Your task to perform on an android device: check data usage Image 0: 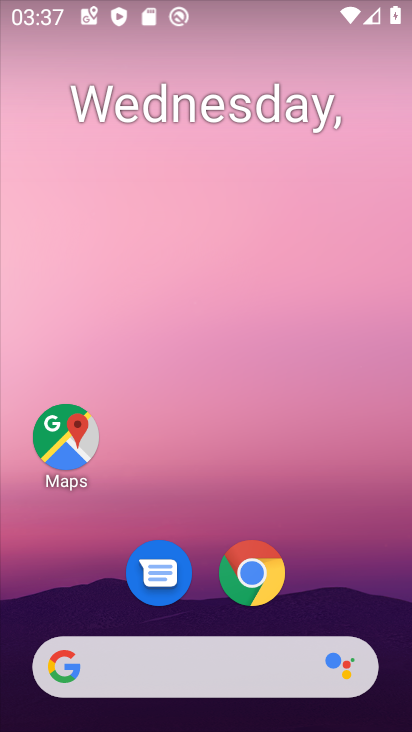
Step 0: drag from (341, 583) to (234, 141)
Your task to perform on an android device: check data usage Image 1: 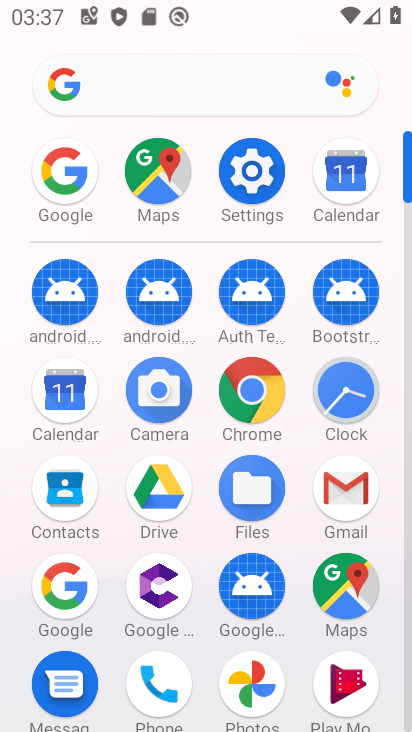
Step 1: click (250, 171)
Your task to perform on an android device: check data usage Image 2: 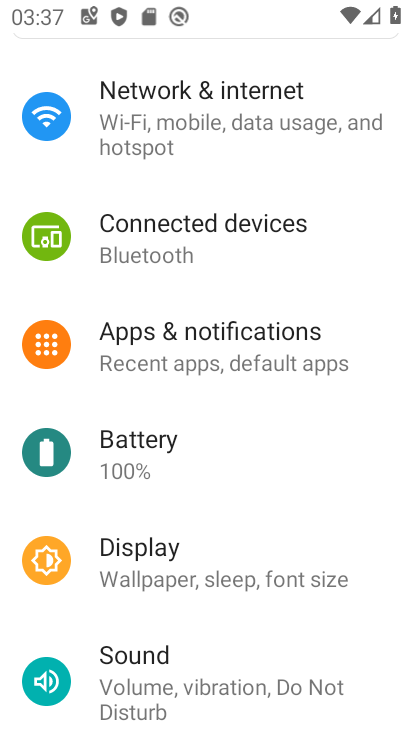
Step 2: click (197, 125)
Your task to perform on an android device: check data usage Image 3: 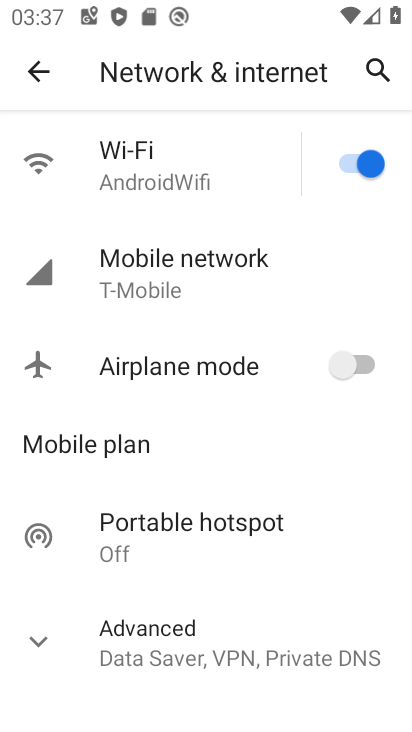
Step 3: click (163, 270)
Your task to perform on an android device: check data usage Image 4: 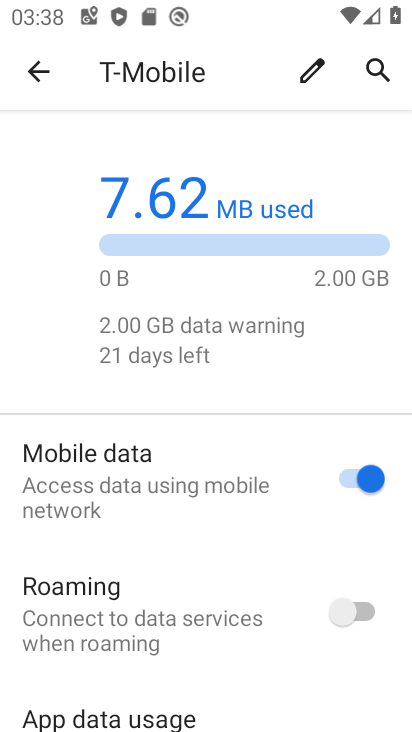
Step 4: task complete